Your task to perform on an android device: When is my next meeting? Image 0: 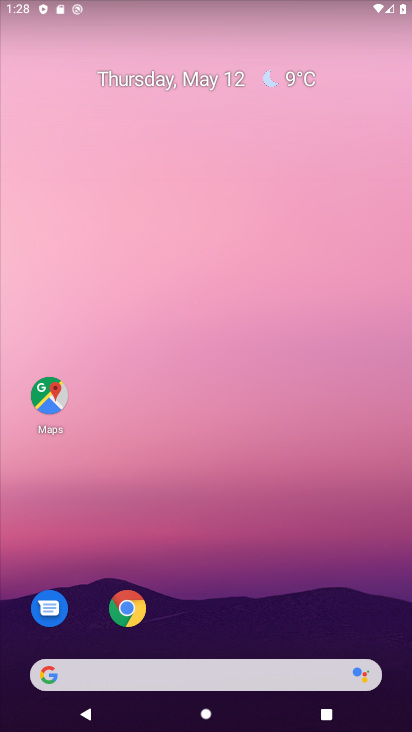
Step 0: drag from (183, 646) to (191, 1)
Your task to perform on an android device: When is my next meeting? Image 1: 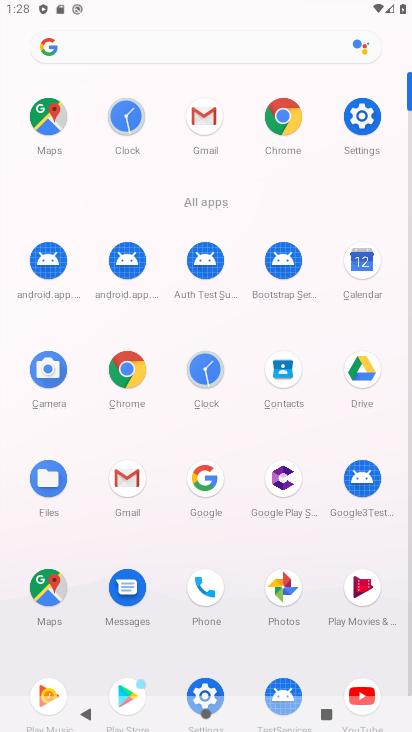
Step 1: click (363, 260)
Your task to perform on an android device: When is my next meeting? Image 2: 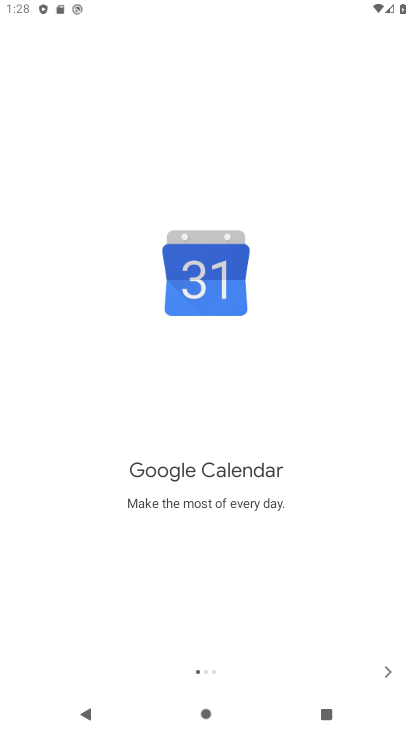
Step 2: click (385, 670)
Your task to perform on an android device: When is my next meeting? Image 3: 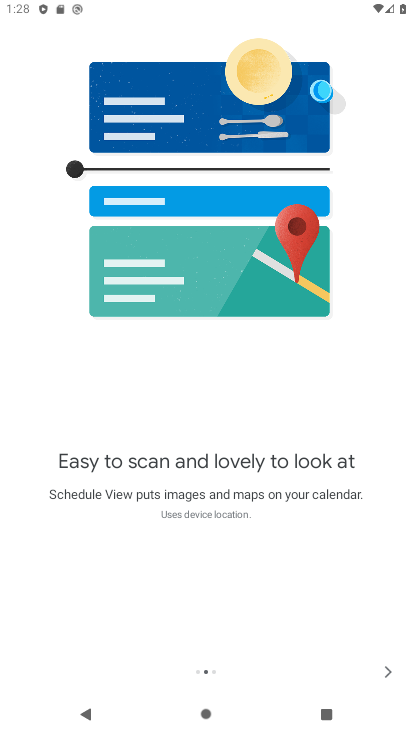
Step 3: click (385, 670)
Your task to perform on an android device: When is my next meeting? Image 4: 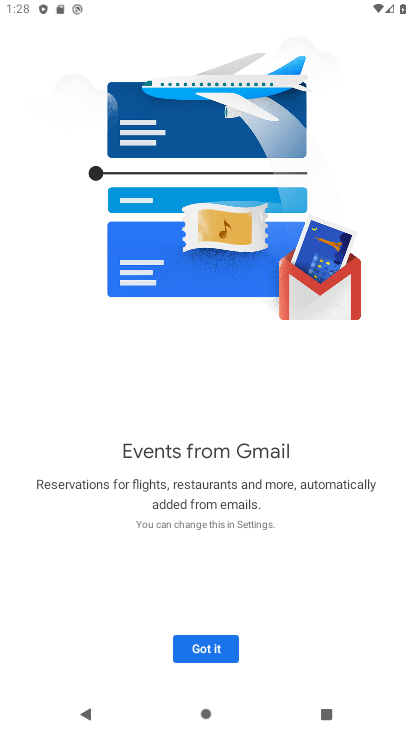
Step 4: click (197, 659)
Your task to perform on an android device: When is my next meeting? Image 5: 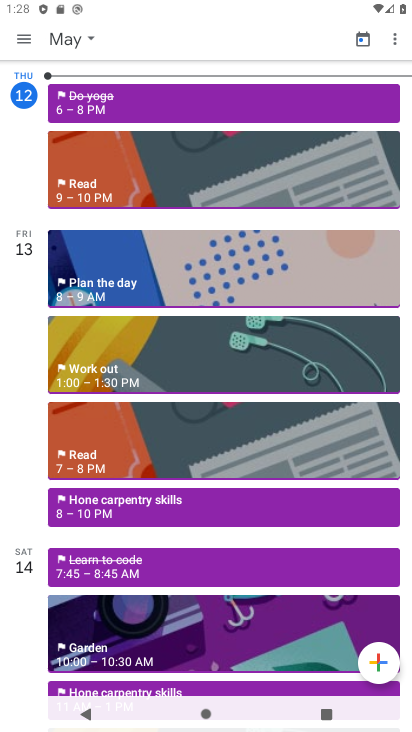
Step 5: click (106, 109)
Your task to perform on an android device: When is my next meeting? Image 6: 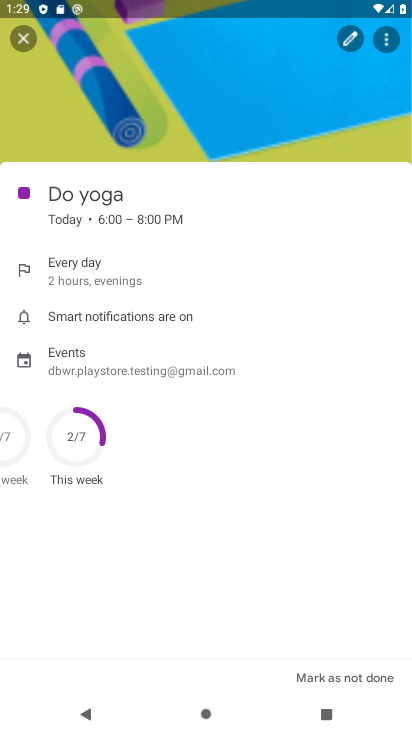
Step 6: click (25, 36)
Your task to perform on an android device: When is my next meeting? Image 7: 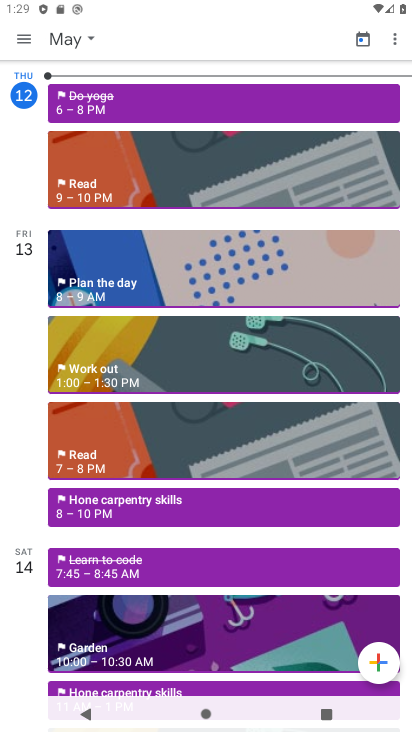
Step 7: click (79, 156)
Your task to perform on an android device: When is my next meeting? Image 8: 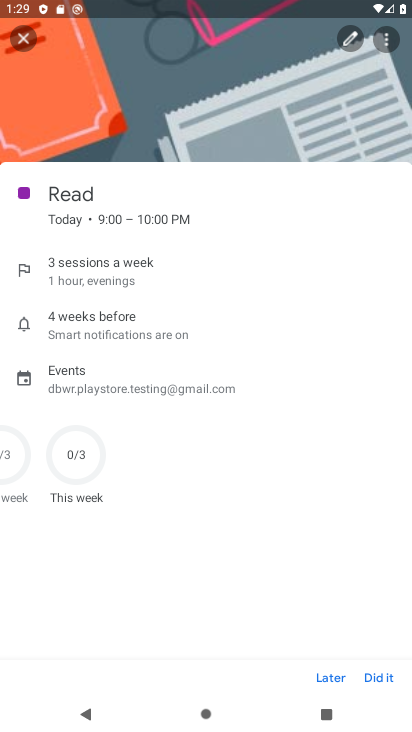
Step 8: click (28, 38)
Your task to perform on an android device: When is my next meeting? Image 9: 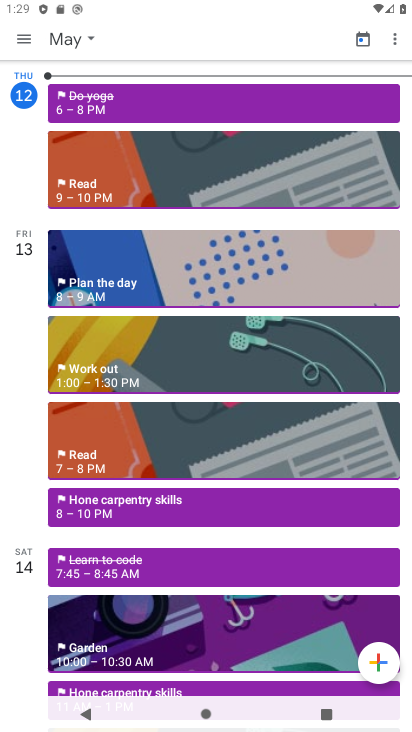
Step 9: task complete